Your task to perform on an android device: Open Wikipedia Image 0: 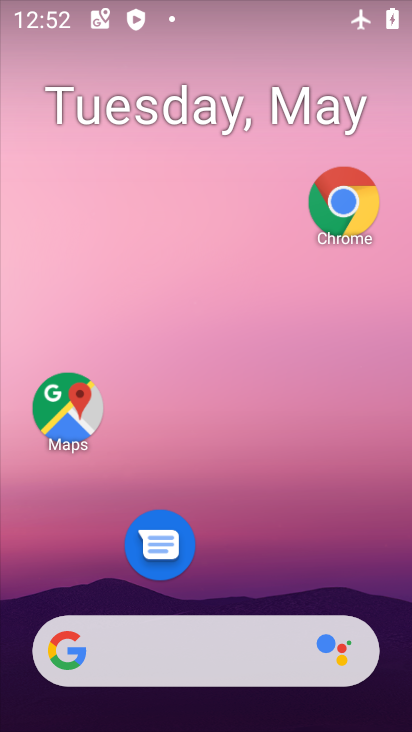
Step 0: click (350, 204)
Your task to perform on an android device: Open Wikipedia Image 1: 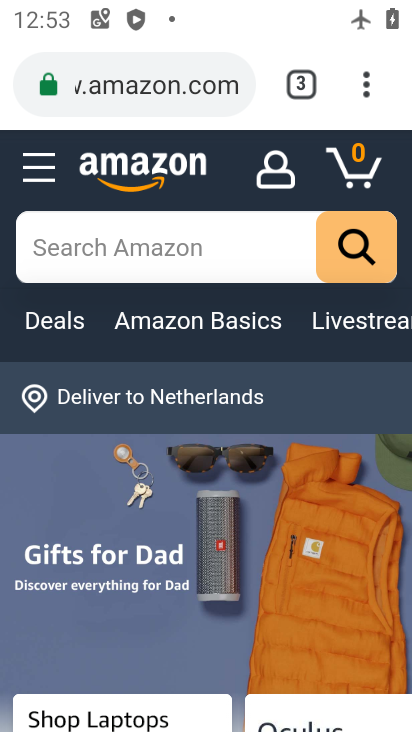
Step 1: click (314, 88)
Your task to perform on an android device: Open Wikipedia Image 2: 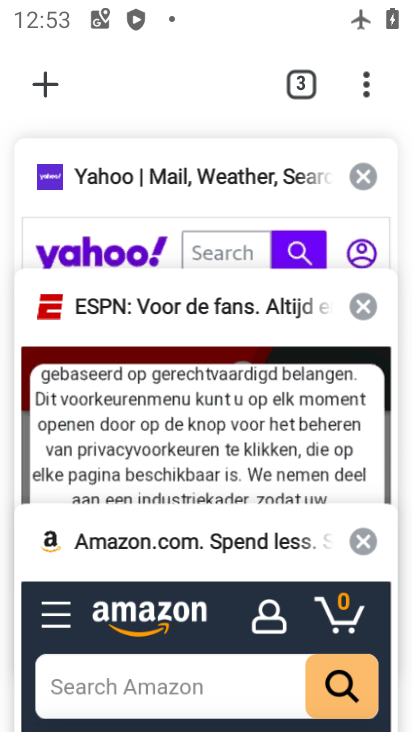
Step 2: click (40, 82)
Your task to perform on an android device: Open Wikipedia Image 3: 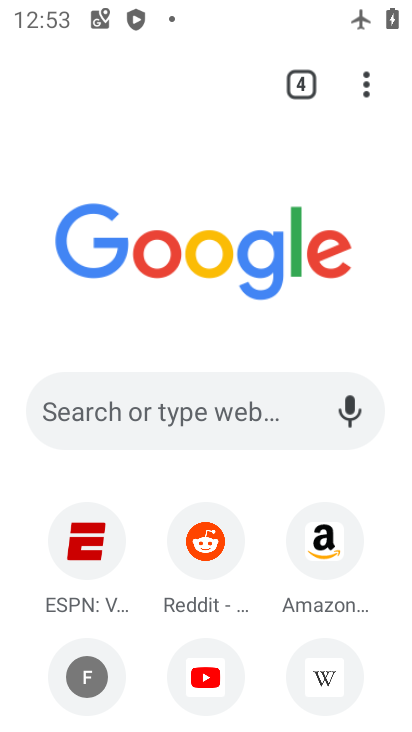
Step 3: click (310, 687)
Your task to perform on an android device: Open Wikipedia Image 4: 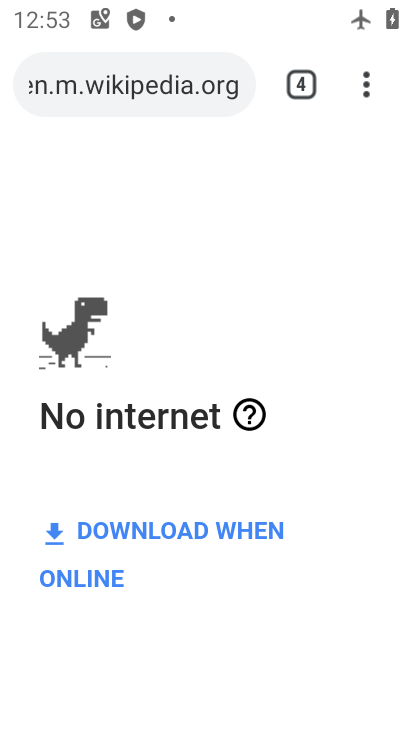
Step 4: drag from (293, 10) to (298, 610)
Your task to perform on an android device: Open Wikipedia Image 5: 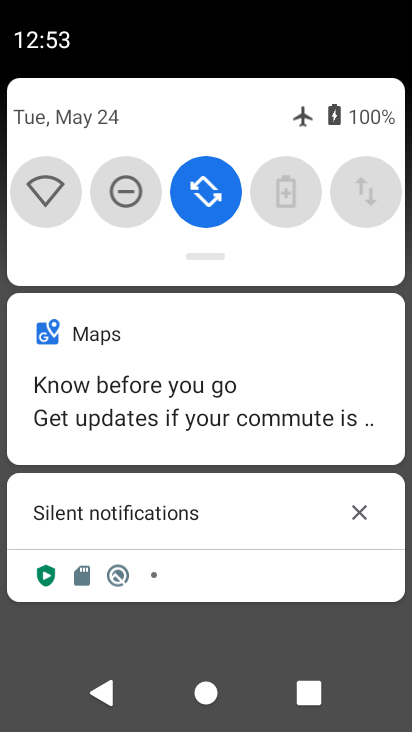
Step 5: drag from (284, 136) to (326, 462)
Your task to perform on an android device: Open Wikipedia Image 6: 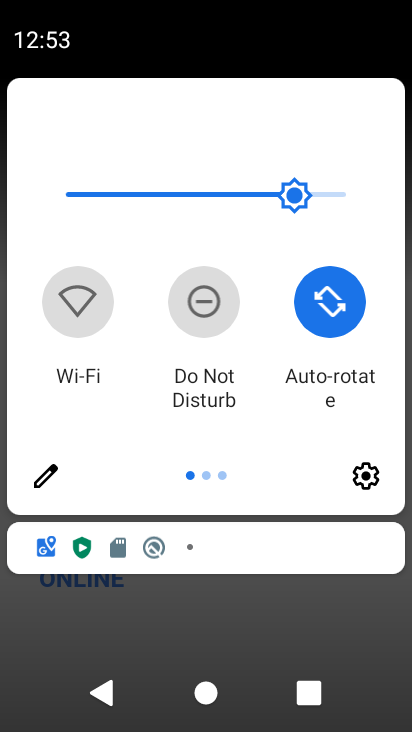
Step 6: drag from (317, 438) to (78, 456)
Your task to perform on an android device: Open Wikipedia Image 7: 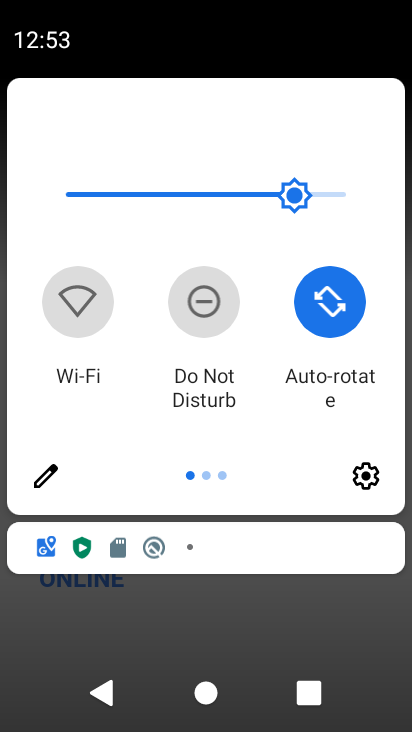
Step 7: drag from (357, 434) to (99, 516)
Your task to perform on an android device: Open Wikipedia Image 8: 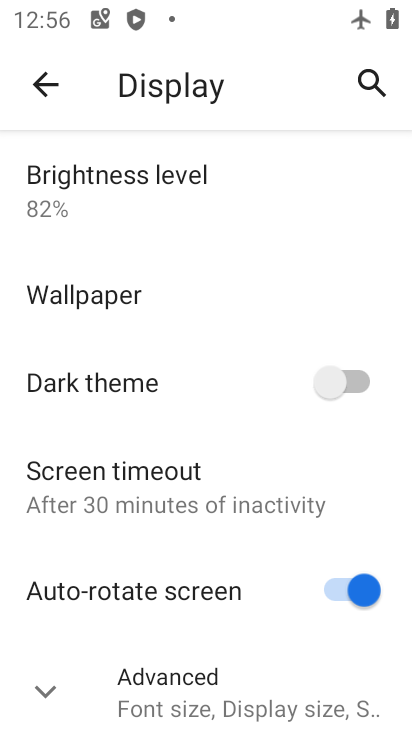
Step 8: click (48, 95)
Your task to perform on an android device: Open Wikipedia Image 9: 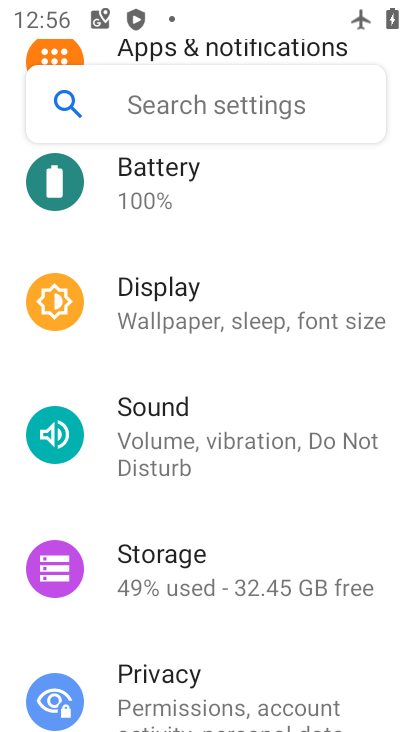
Step 9: drag from (210, 206) to (246, 731)
Your task to perform on an android device: Open Wikipedia Image 10: 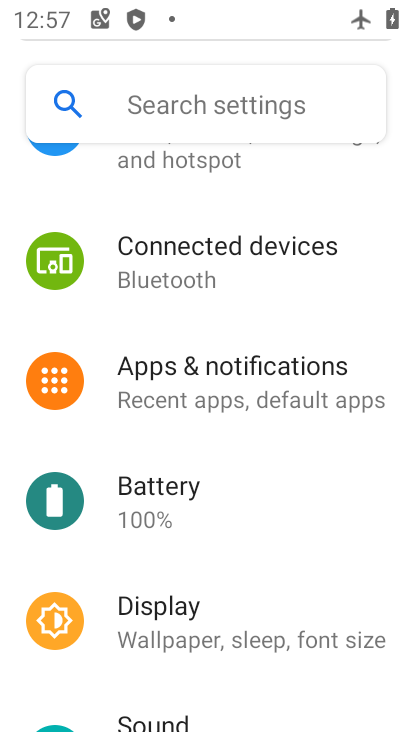
Step 10: drag from (193, 186) to (201, 561)
Your task to perform on an android device: Open Wikipedia Image 11: 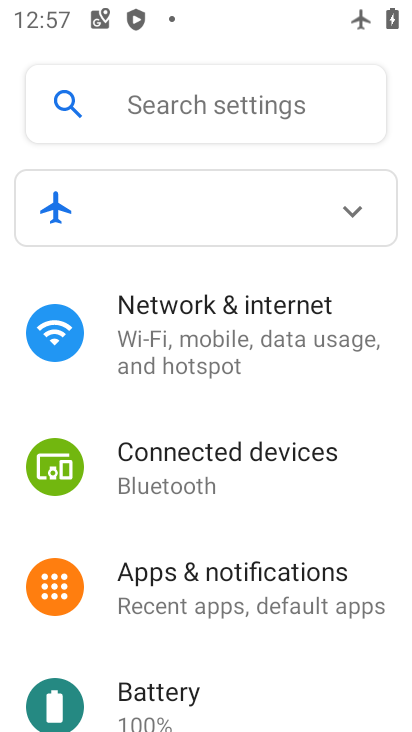
Step 11: click (235, 357)
Your task to perform on an android device: Open Wikipedia Image 12: 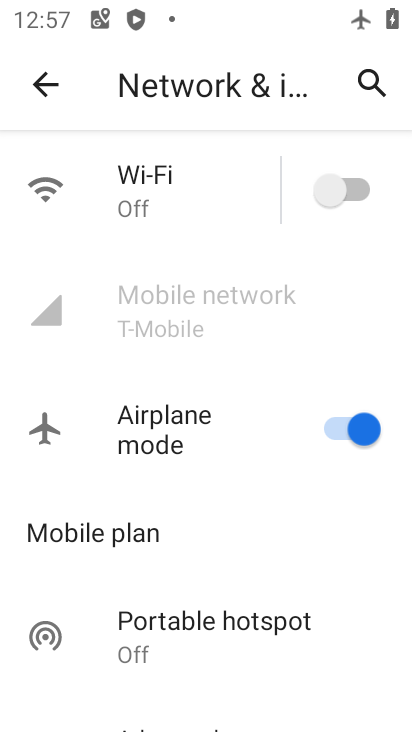
Step 12: click (330, 423)
Your task to perform on an android device: Open Wikipedia Image 13: 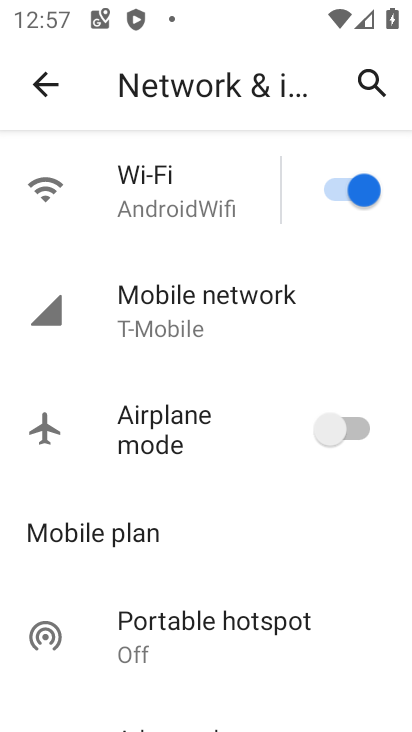
Step 13: task complete